Your task to perform on an android device: toggle notifications settings in the gmail app Image 0: 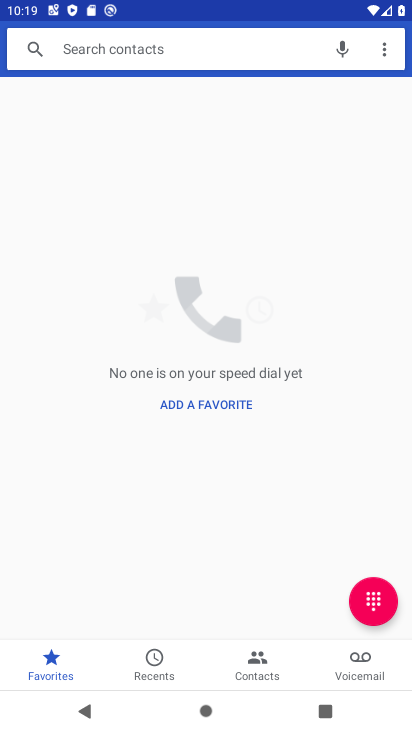
Step 0: press home button
Your task to perform on an android device: toggle notifications settings in the gmail app Image 1: 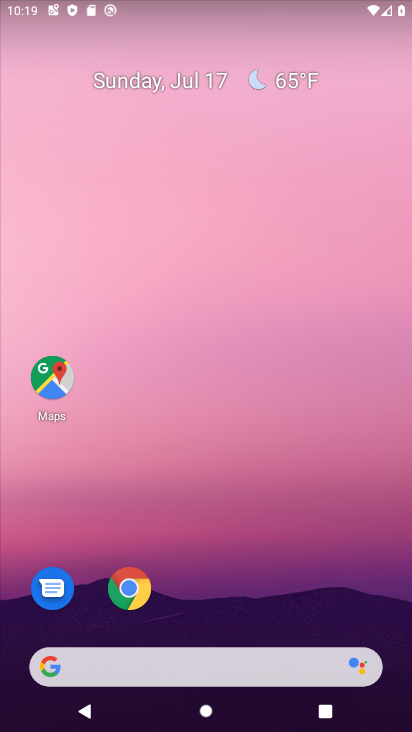
Step 1: drag from (234, 520) to (158, 62)
Your task to perform on an android device: toggle notifications settings in the gmail app Image 2: 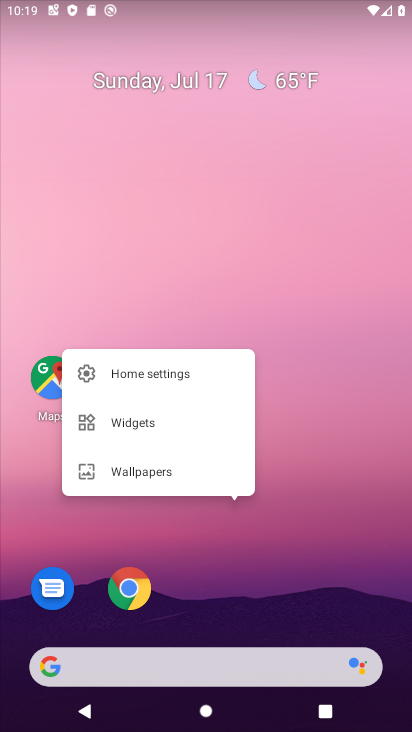
Step 2: click (196, 190)
Your task to perform on an android device: toggle notifications settings in the gmail app Image 3: 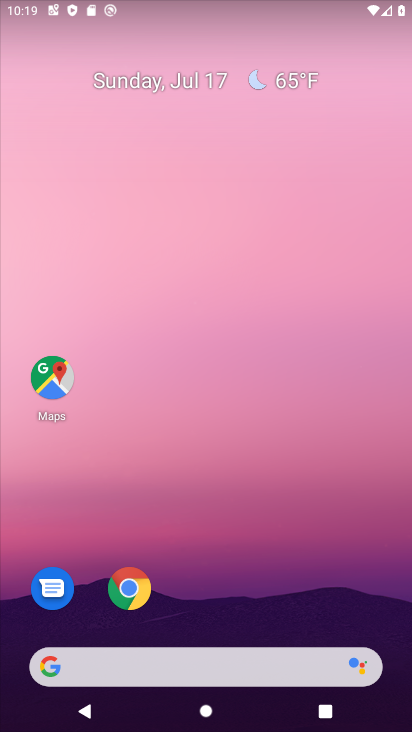
Step 3: drag from (238, 583) to (176, 64)
Your task to perform on an android device: toggle notifications settings in the gmail app Image 4: 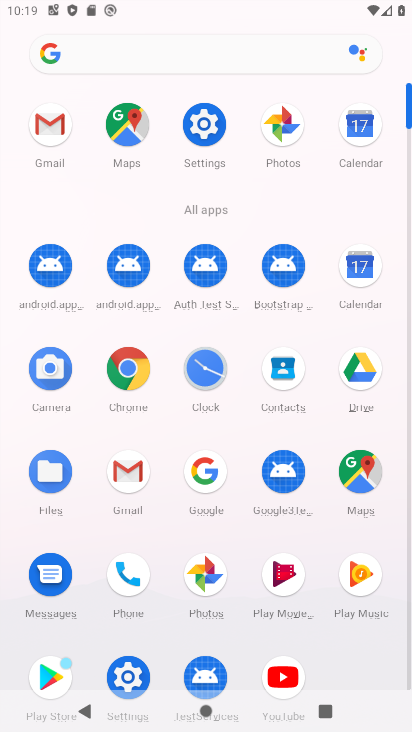
Step 4: click (44, 124)
Your task to perform on an android device: toggle notifications settings in the gmail app Image 5: 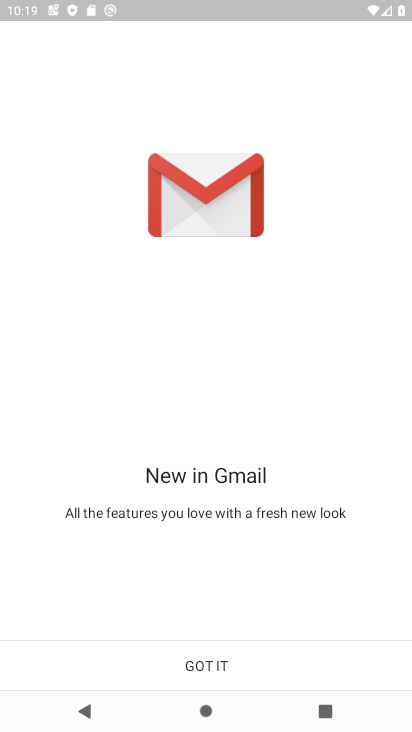
Step 5: click (209, 659)
Your task to perform on an android device: toggle notifications settings in the gmail app Image 6: 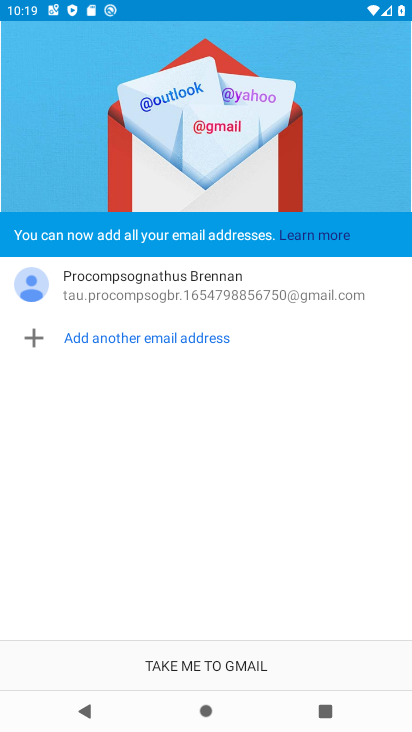
Step 6: click (209, 659)
Your task to perform on an android device: toggle notifications settings in the gmail app Image 7: 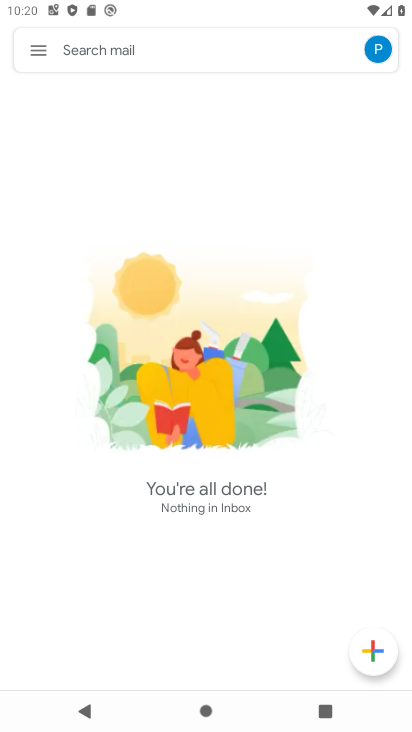
Step 7: click (42, 49)
Your task to perform on an android device: toggle notifications settings in the gmail app Image 8: 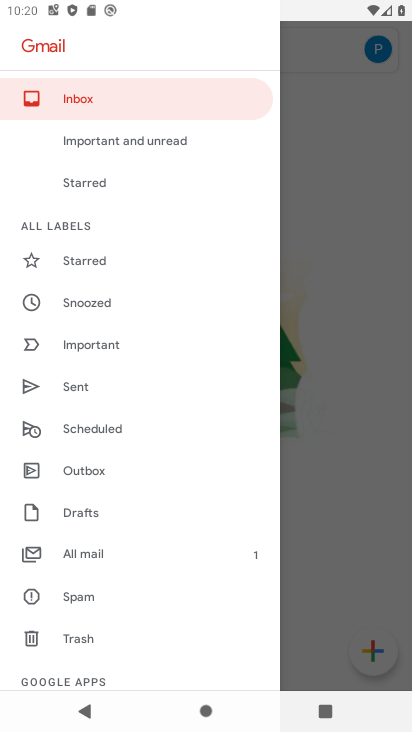
Step 8: drag from (175, 612) to (158, 218)
Your task to perform on an android device: toggle notifications settings in the gmail app Image 9: 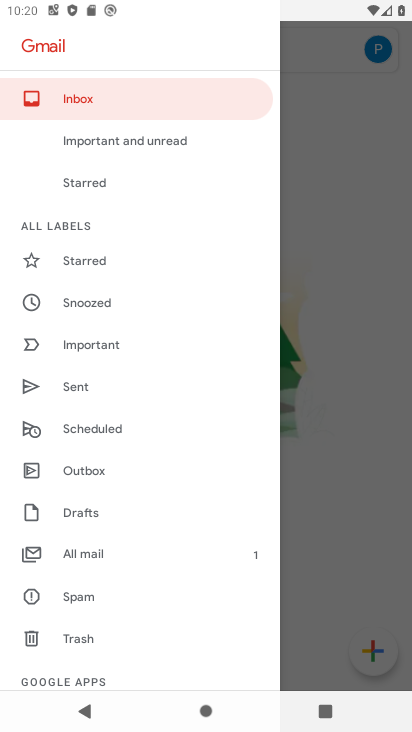
Step 9: drag from (178, 603) to (179, 68)
Your task to perform on an android device: toggle notifications settings in the gmail app Image 10: 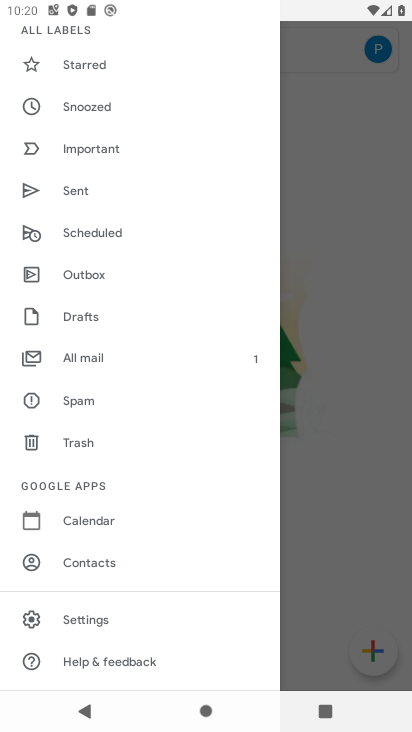
Step 10: click (87, 614)
Your task to perform on an android device: toggle notifications settings in the gmail app Image 11: 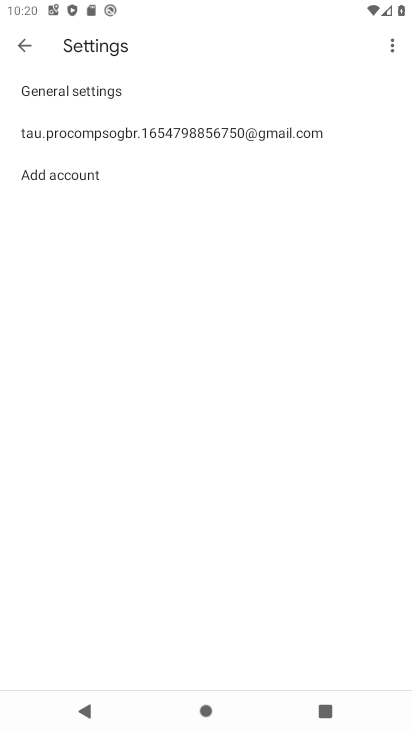
Step 11: click (86, 86)
Your task to perform on an android device: toggle notifications settings in the gmail app Image 12: 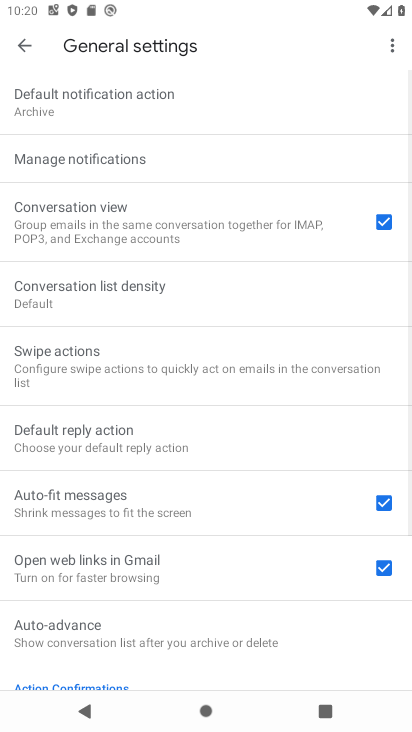
Step 12: click (102, 158)
Your task to perform on an android device: toggle notifications settings in the gmail app Image 13: 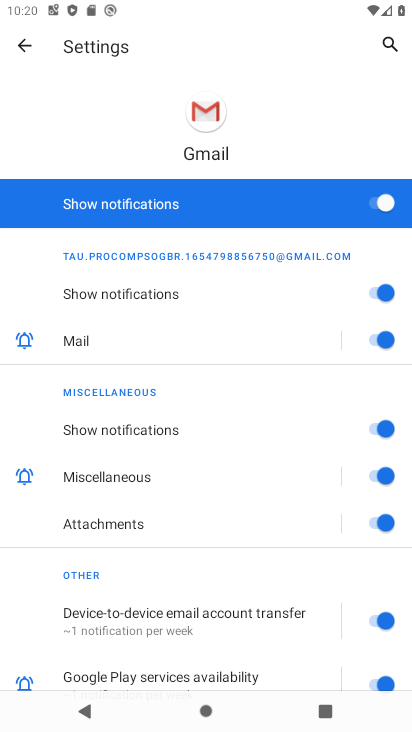
Step 13: click (389, 204)
Your task to perform on an android device: toggle notifications settings in the gmail app Image 14: 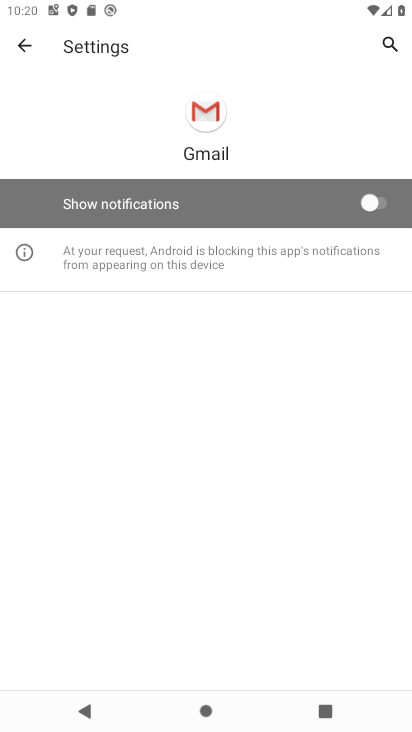
Step 14: task complete